Your task to perform on an android device: Toggle the flashlight Image 0: 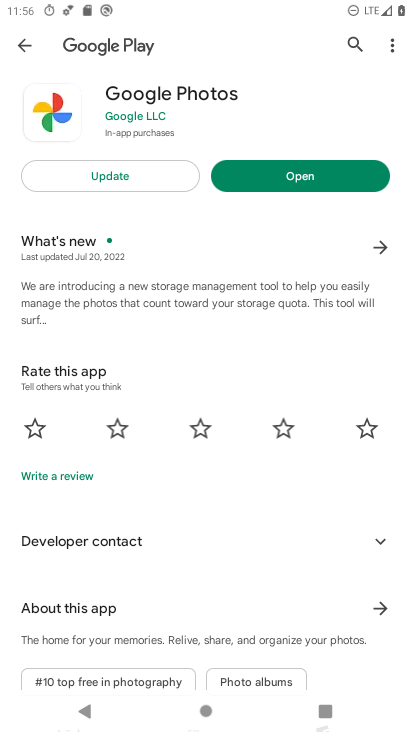
Step 0: press home button
Your task to perform on an android device: Toggle the flashlight Image 1: 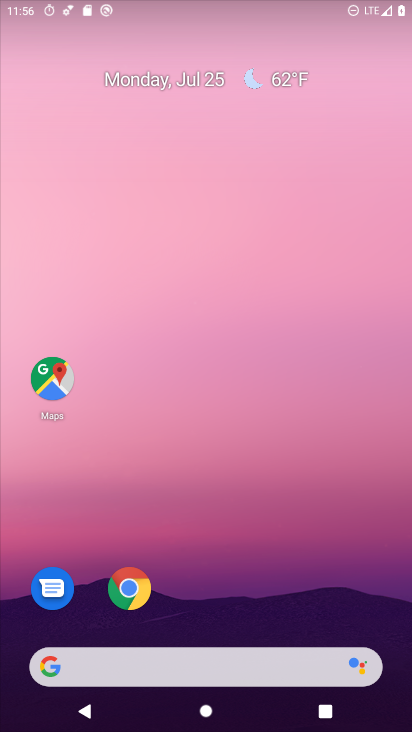
Step 1: drag from (67, 477) to (335, 94)
Your task to perform on an android device: Toggle the flashlight Image 2: 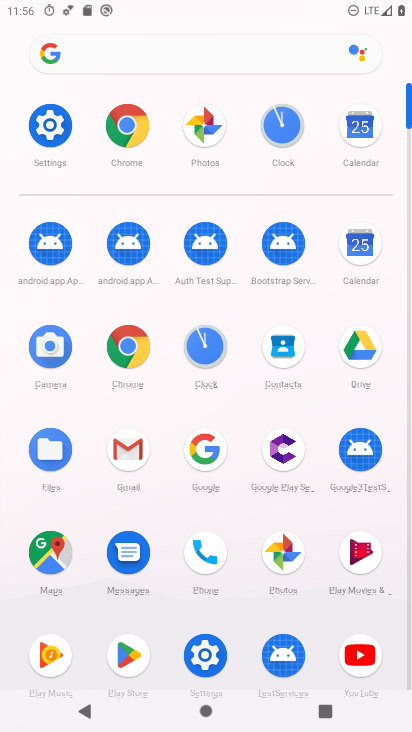
Step 2: click (53, 129)
Your task to perform on an android device: Toggle the flashlight Image 3: 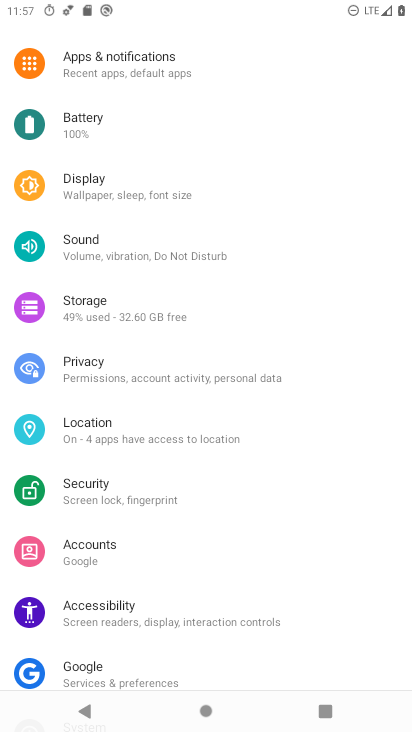
Step 3: task complete